Your task to perform on an android device: remove spam from my inbox in the gmail app Image 0: 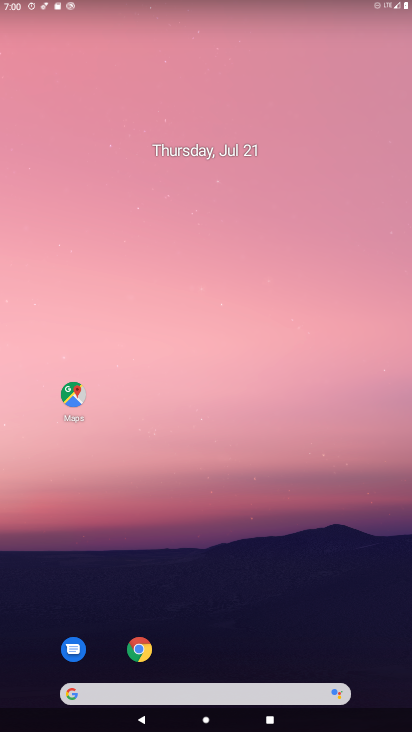
Step 0: drag from (347, 624) to (172, 33)
Your task to perform on an android device: remove spam from my inbox in the gmail app Image 1: 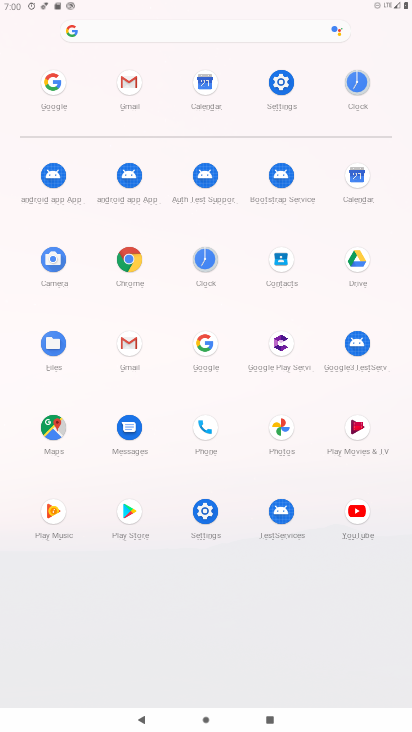
Step 1: click (122, 336)
Your task to perform on an android device: remove spam from my inbox in the gmail app Image 2: 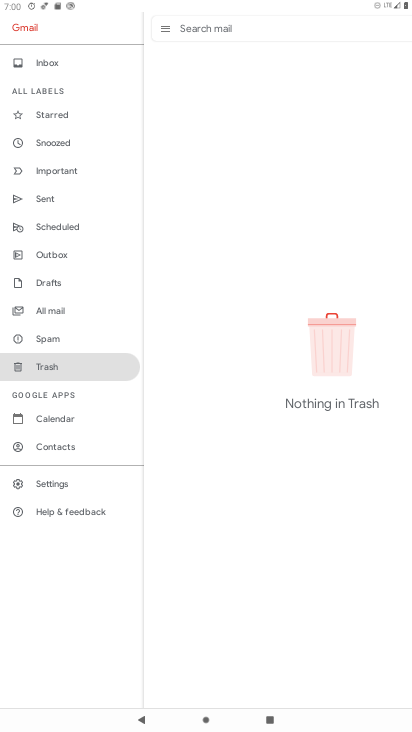
Step 2: click (56, 60)
Your task to perform on an android device: remove spam from my inbox in the gmail app Image 3: 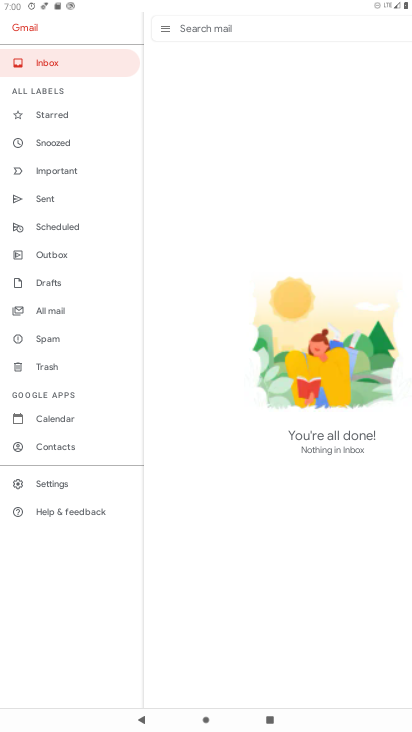
Step 3: task complete